Your task to perform on an android device: turn on airplane mode Image 0: 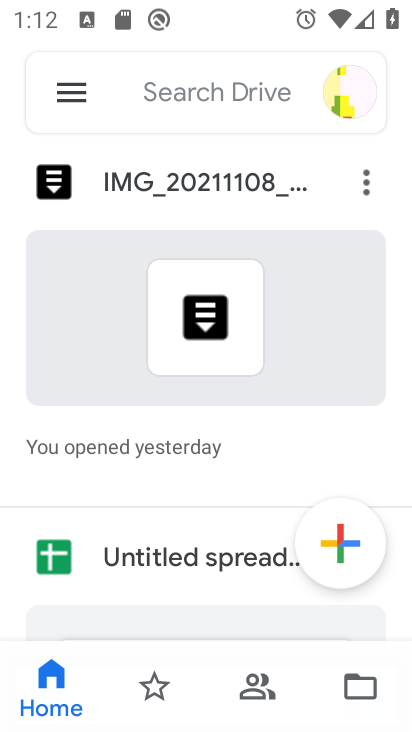
Step 0: press home button
Your task to perform on an android device: turn on airplane mode Image 1: 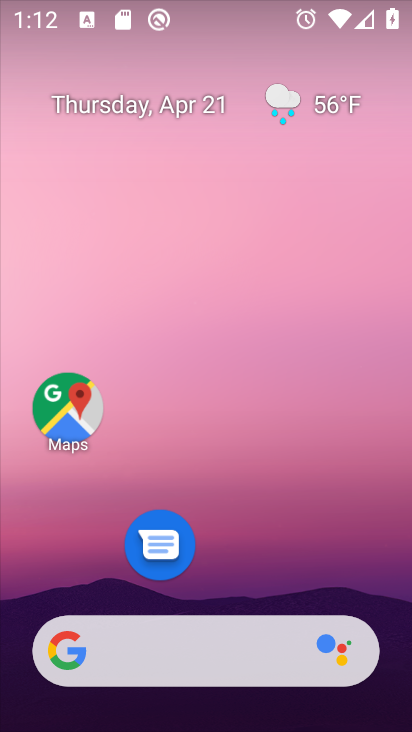
Step 1: drag from (246, 550) to (304, 95)
Your task to perform on an android device: turn on airplane mode Image 2: 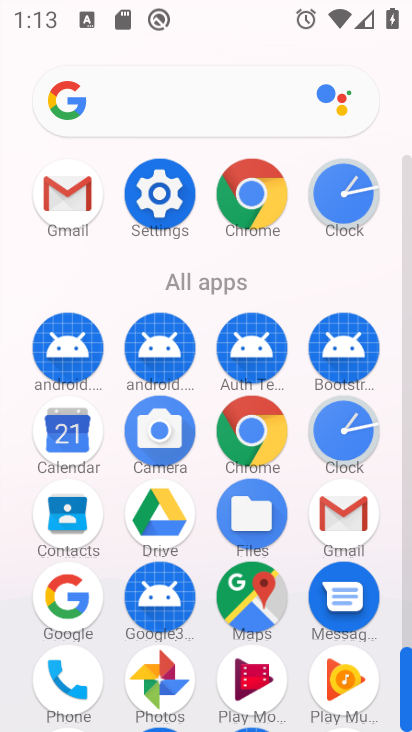
Step 2: click (158, 201)
Your task to perform on an android device: turn on airplane mode Image 3: 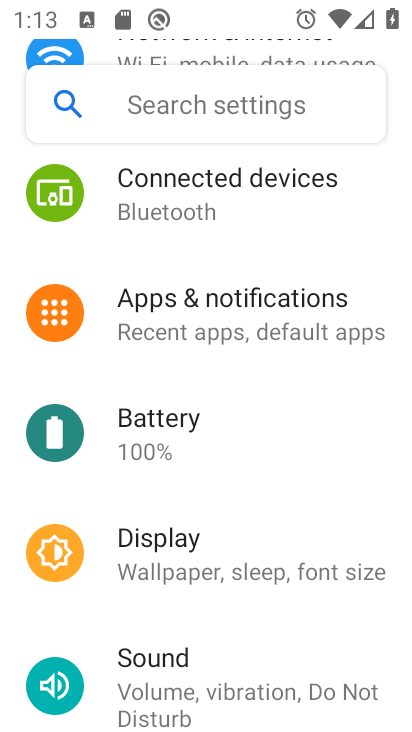
Step 3: drag from (210, 293) to (144, 725)
Your task to perform on an android device: turn on airplane mode Image 4: 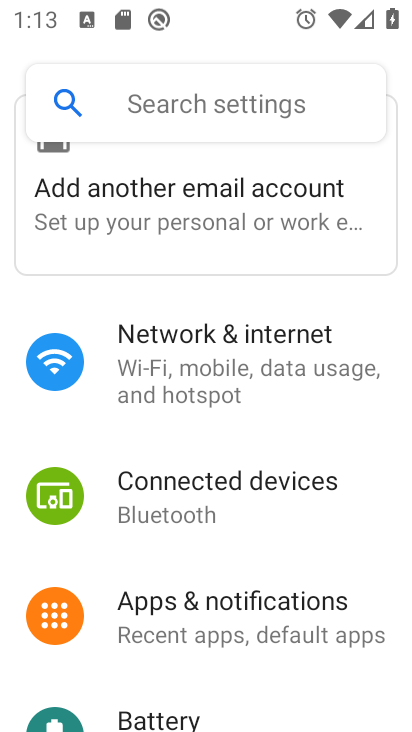
Step 4: click (265, 353)
Your task to perform on an android device: turn on airplane mode Image 5: 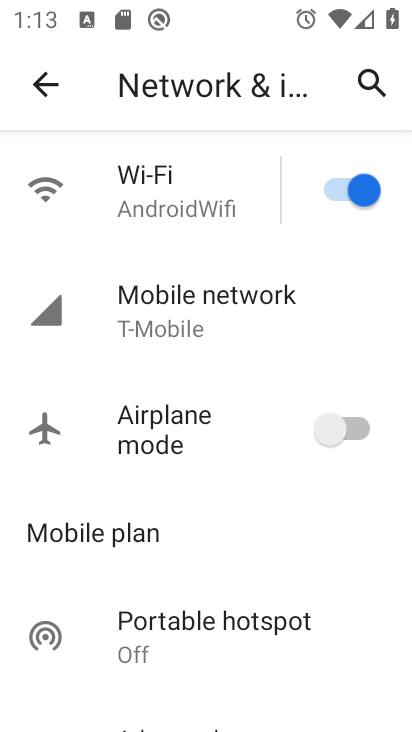
Step 5: click (330, 410)
Your task to perform on an android device: turn on airplane mode Image 6: 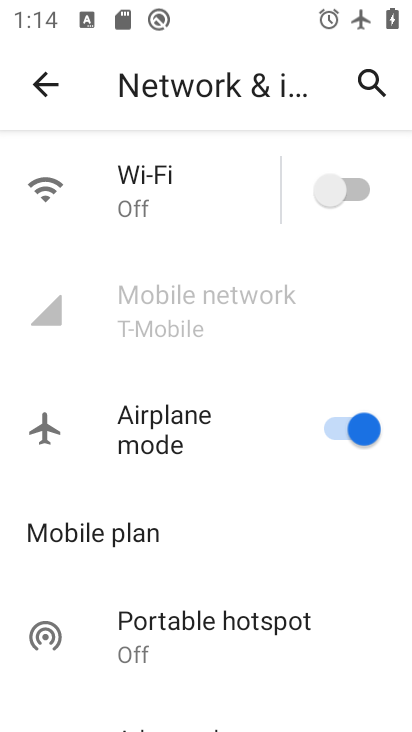
Step 6: task complete